Your task to perform on an android device: read, delete, or share a saved page in the chrome app Image 0: 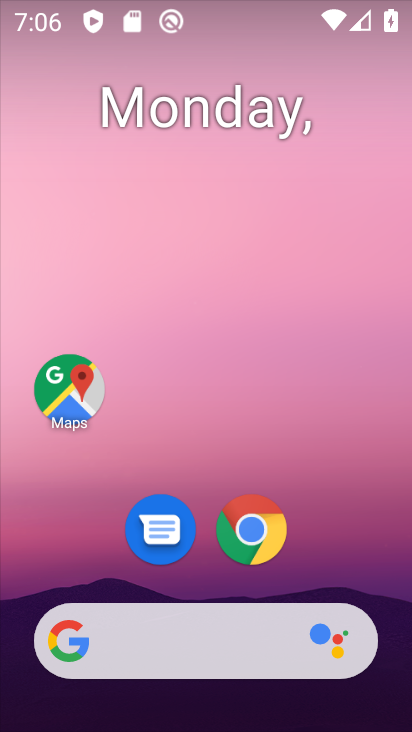
Step 0: click (257, 522)
Your task to perform on an android device: read, delete, or share a saved page in the chrome app Image 1: 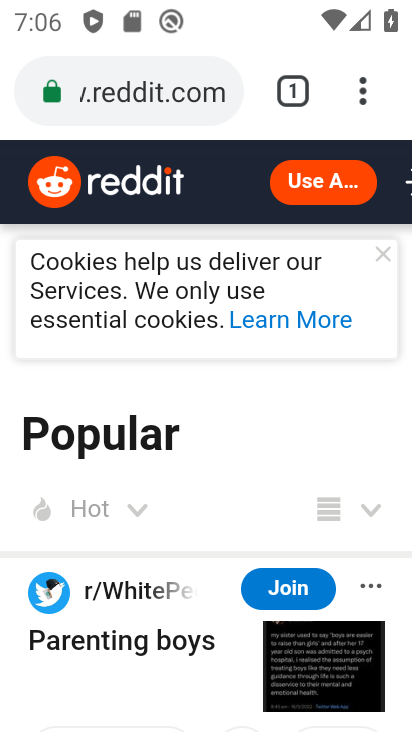
Step 1: click (360, 86)
Your task to perform on an android device: read, delete, or share a saved page in the chrome app Image 2: 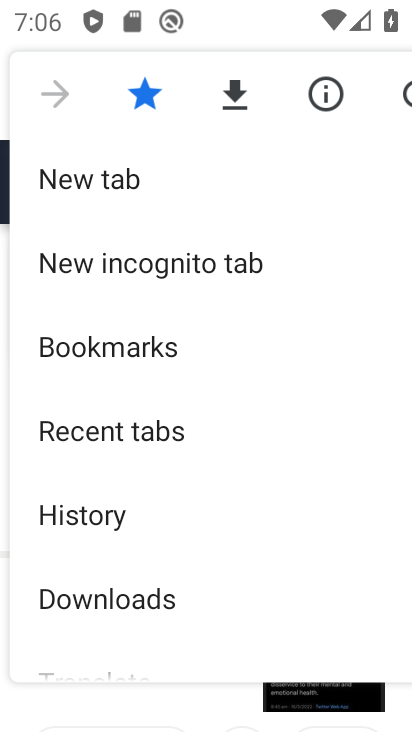
Step 2: drag from (199, 517) to (174, 232)
Your task to perform on an android device: read, delete, or share a saved page in the chrome app Image 3: 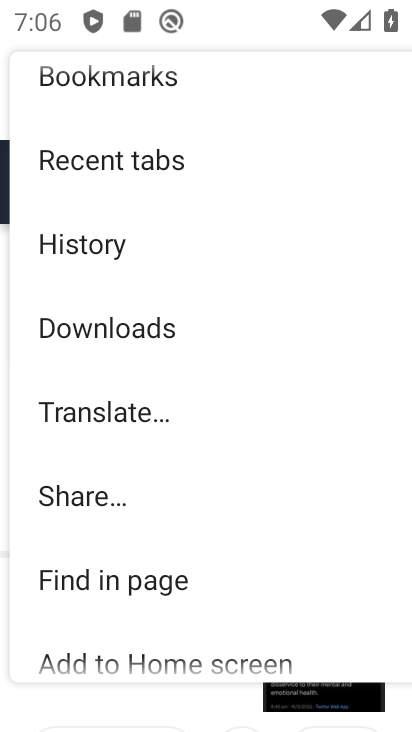
Step 3: click (128, 330)
Your task to perform on an android device: read, delete, or share a saved page in the chrome app Image 4: 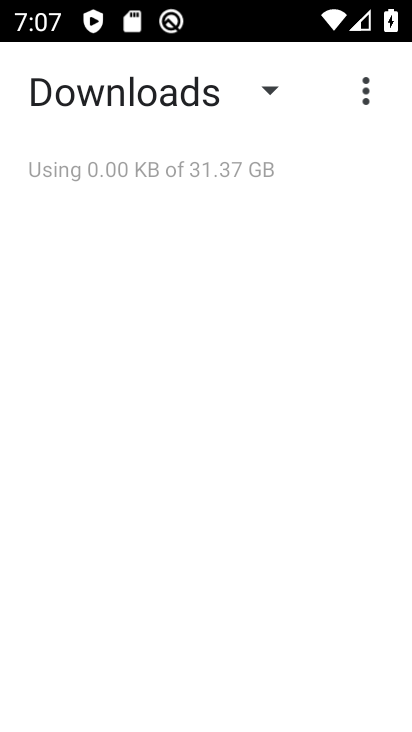
Step 4: task complete